Your task to perform on an android device: Search for seafood restaurants on Google Maps Image 0: 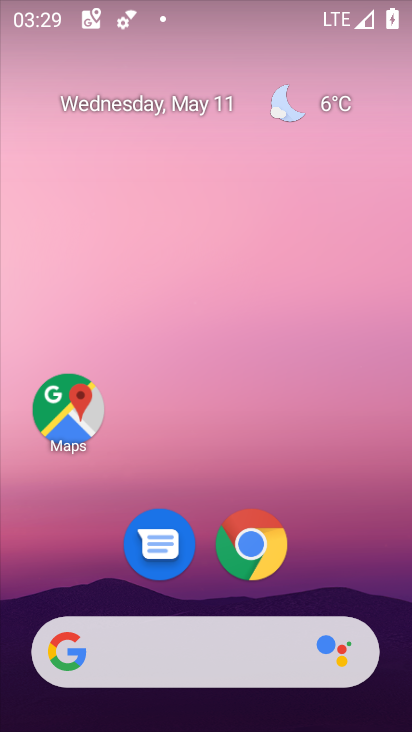
Step 0: click (64, 417)
Your task to perform on an android device: Search for seafood restaurants on Google Maps Image 1: 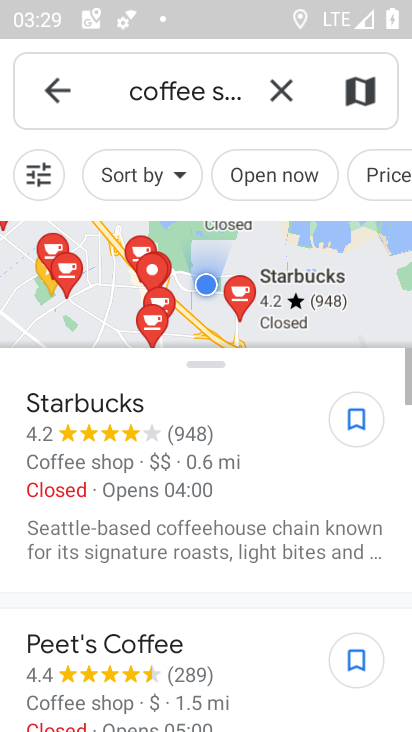
Step 1: click (268, 94)
Your task to perform on an android device: Search for seafood restaurants on Google Maps Image 2: 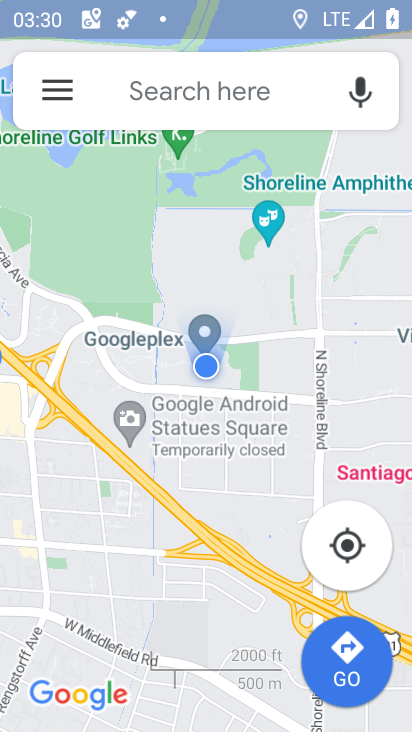
Step 2: click (224, 102)
Your task to perform on an android device: Search for seafood restaurants on Google Maps Image 3: 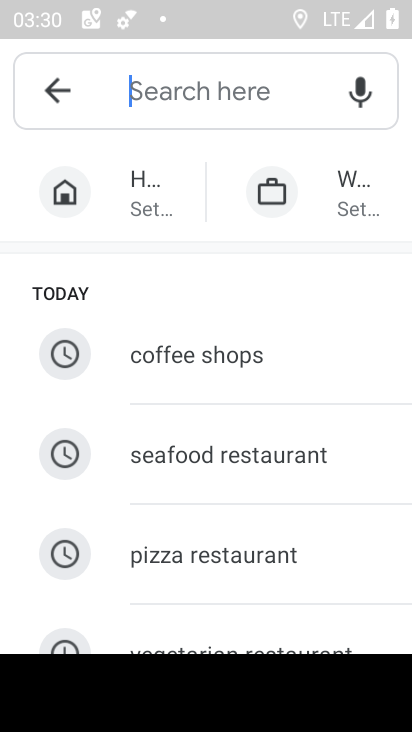
Step 3: type "seafood restaurants"
Your task to perform on an android device: Search for seafood restaurants on Google Maps Image 4: 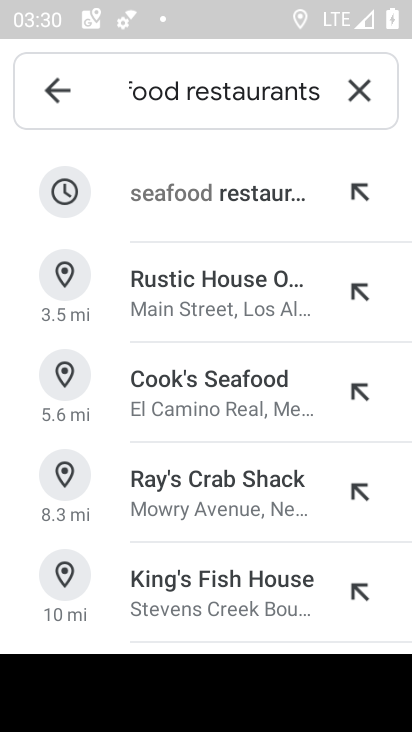
Step 4: click (248, 194)
Your task to perform on an android device: Search for seafood restaurants on Google Maps Image 5: 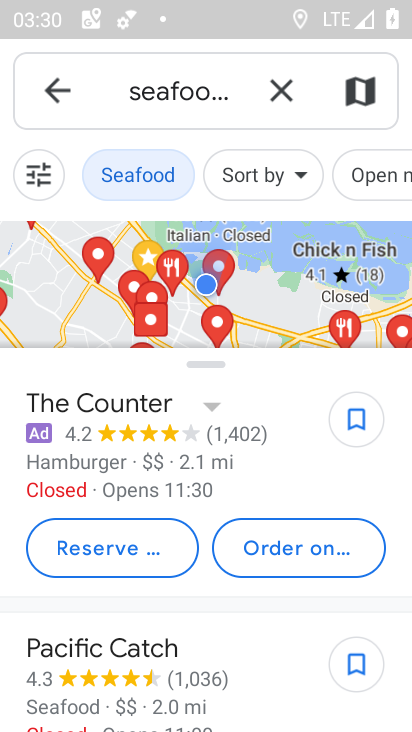
Step 5: task complete